Your task to perform on an android device: turn on location history Image 0: 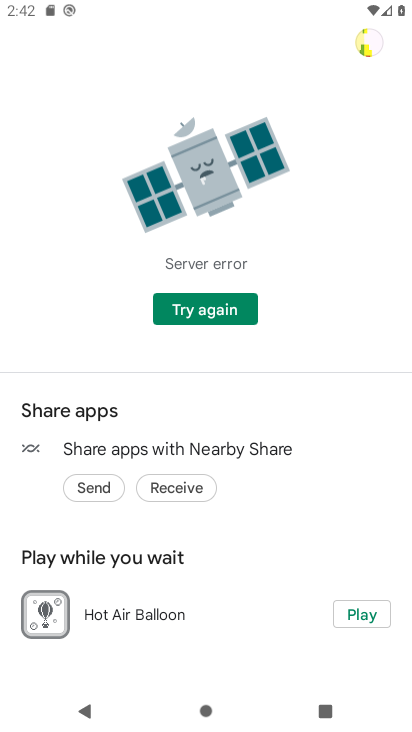
Step 0: press home button
Your task to perform on an android device: turn on location history Image 1: 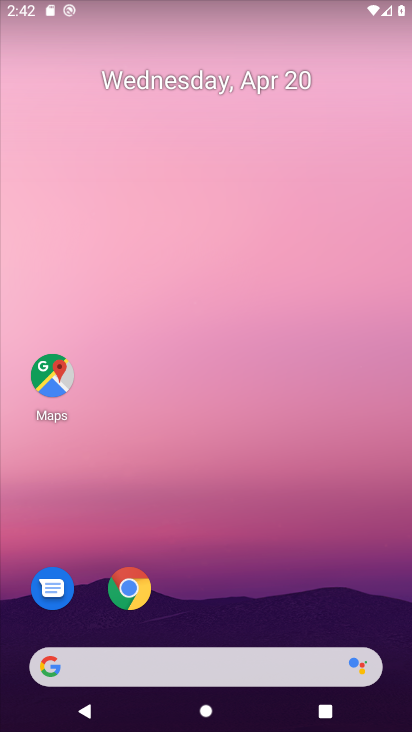
Step 1: drag from (321, 591) to (306, 226)
Your task to perform on an android device: turn on location history Image 2: 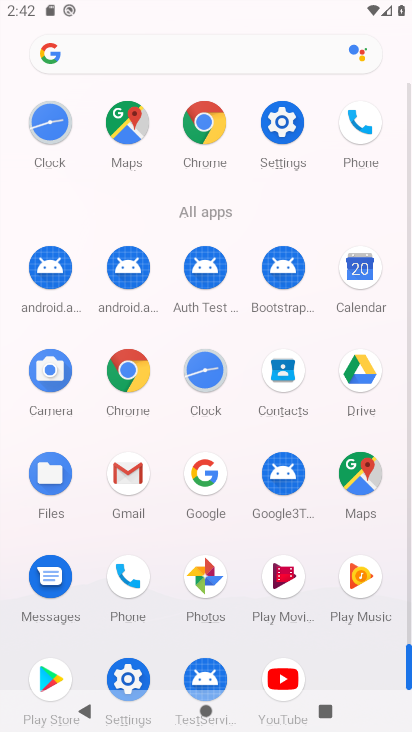
Step 2: click (283, 124)
Your task to perform on an android device: turn on location history Image 3: 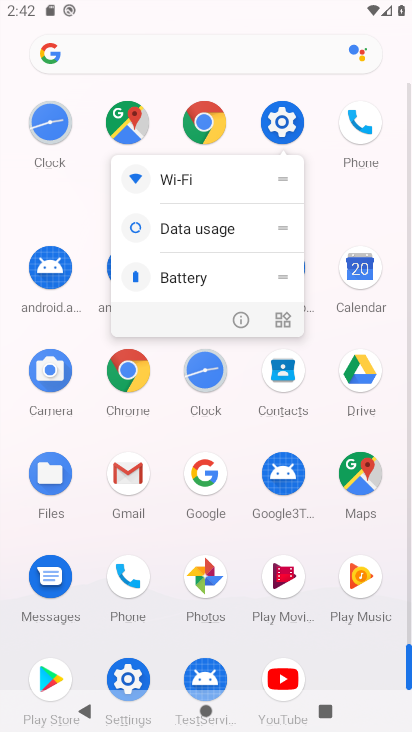
Step 3: click (285, 143)
Your task to perform on an android device: turn on location history Image 4: 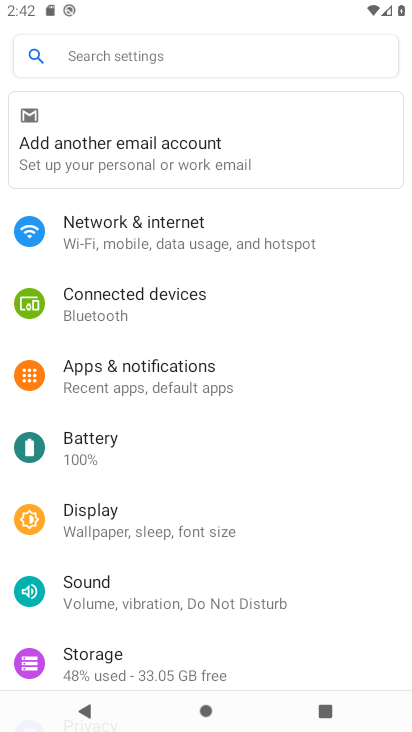
Step 4: drag from (352, 601) to (355, 424)
Your task to perform on an android device: turn on location history Image 5: 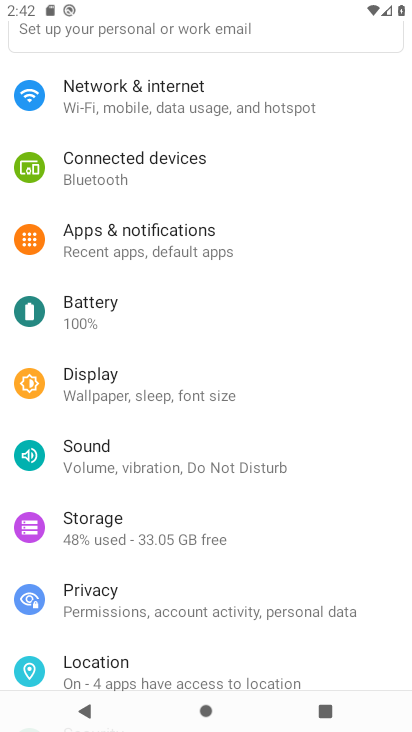
Step 5: drag from (370, 635) to (368, 405)
Your task to perform on an android device: turn on location history Image 6: 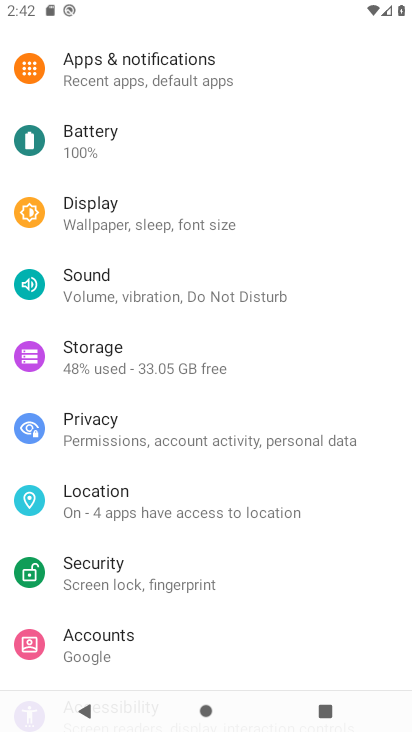
Step 6: drag from (360, 574) to (373, 255)
Your task to perform on an android device: turn on location history Image 7: 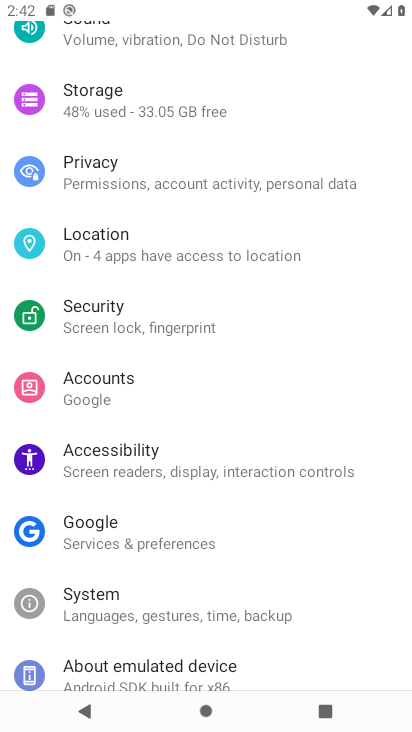
Step 7: drag from (341, 547) to (351, 315)
Your task to perform on an android device: turn on location history Image 8: 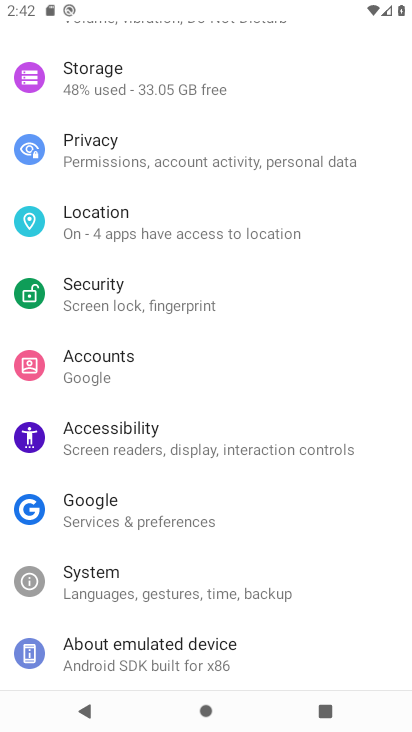
Step 8: click (185, 227)
Your task to perform on an android device: turn on location history Image 9: 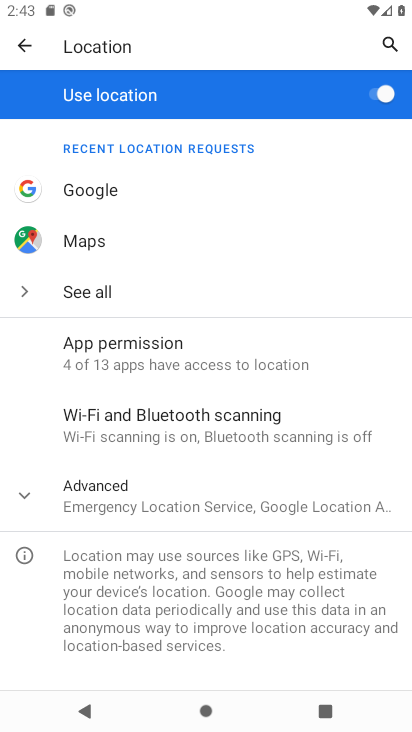
Step 9: click (301, 511)
Your task to perform on an android device: turn on location history Image 10: 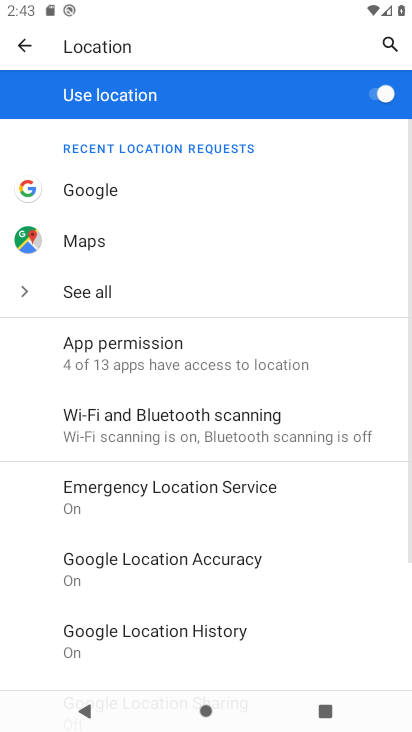
Step 10: task complete